Your task to perform on an android device: Open calendar and show me the third week of next month Image 0: 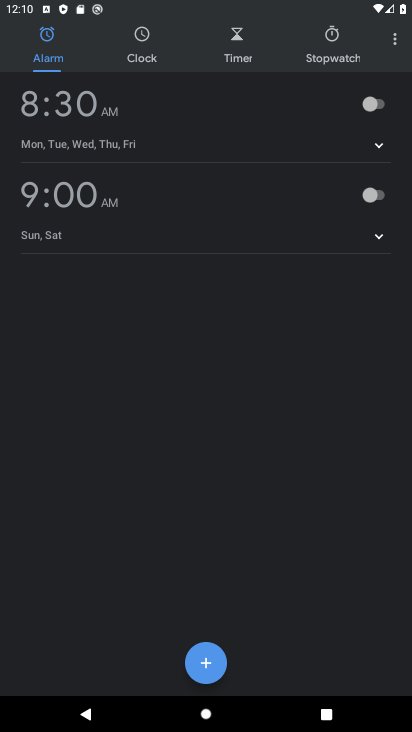
Step 0: press home button
Your task to perform on an android device: Open calendar and show me the third week of next month Image 1: 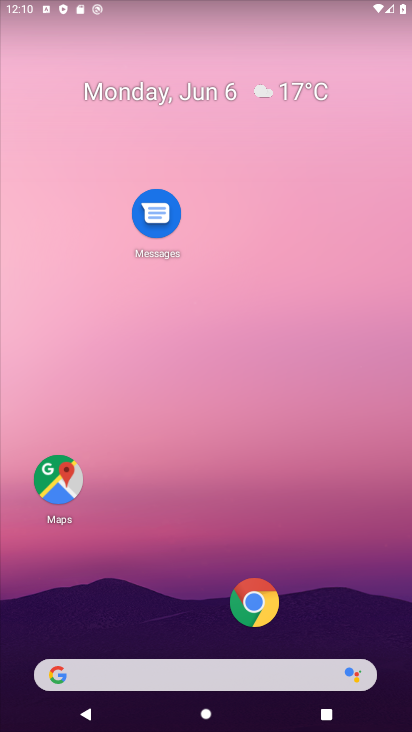
Step 1: drag from (338, 611) to (340, 149)
Your task to perform on an android device: Open calendar and show me the third week of next month Image 2: 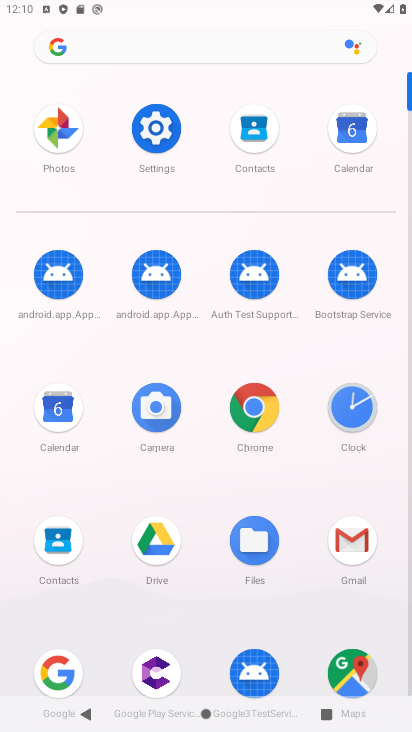
Step 2: click (68, 428)
Your task to perform on an android device: Open calendar and show me the third week of next month Image 3: 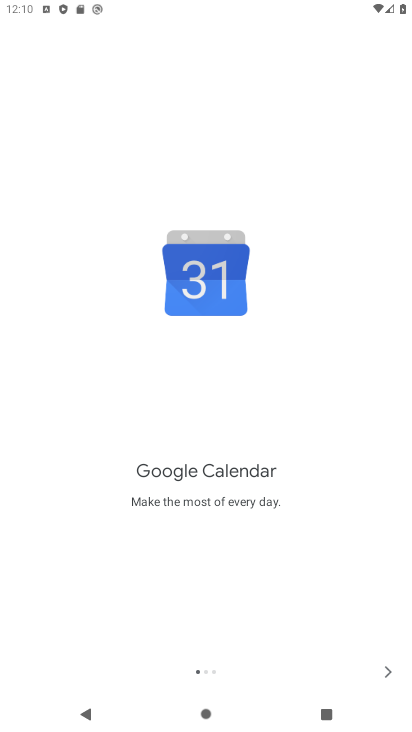
Step 3: click (381, 665)
Your task to perform on an android device: Open calendar and show me the third week of next month Image 4: 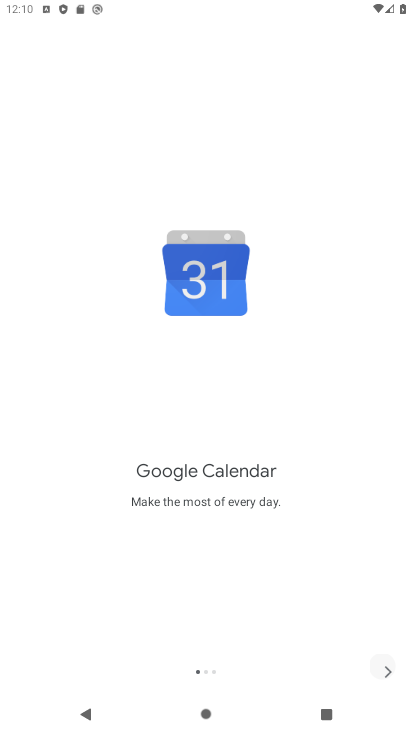
Step 4: click (381, 665)
Your task to perform on an android device: Open calendar and show me the third week of next month Image 5: 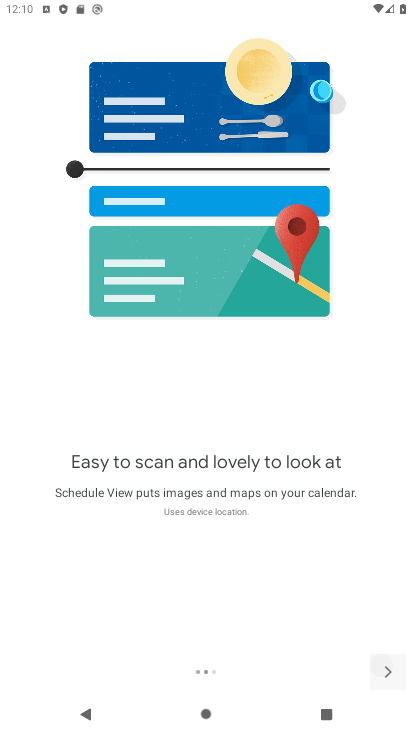
Step 5: click (381, 665)
Your task to perform on an android device: Open calendar and show me the third week of next month Image 6: 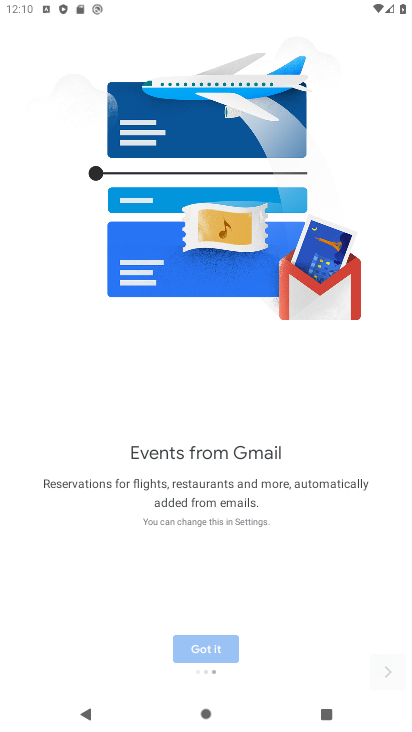
Step 6: click (381, 665)
Your task to perform on an android device: Open calendar and show me the third week of next month Image 7: 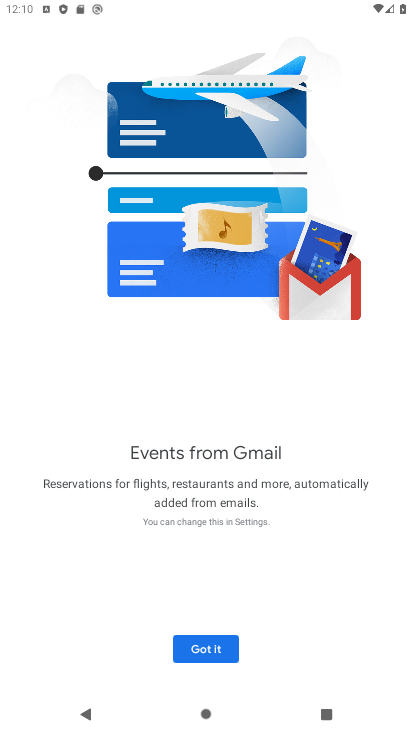
Step 7: click (180, 650)
Your task to perform on an android device: Open calendar and show me the third week of next month Image 8: 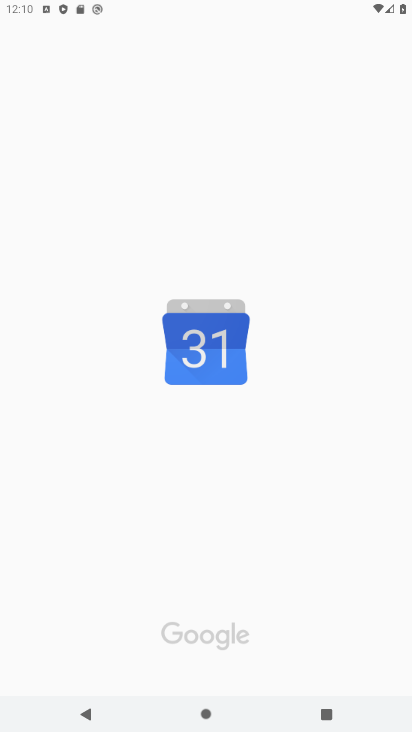
Step 8: task complete